Your task to perform on an android device: Set the phone to "Do not disturb". Image 0: 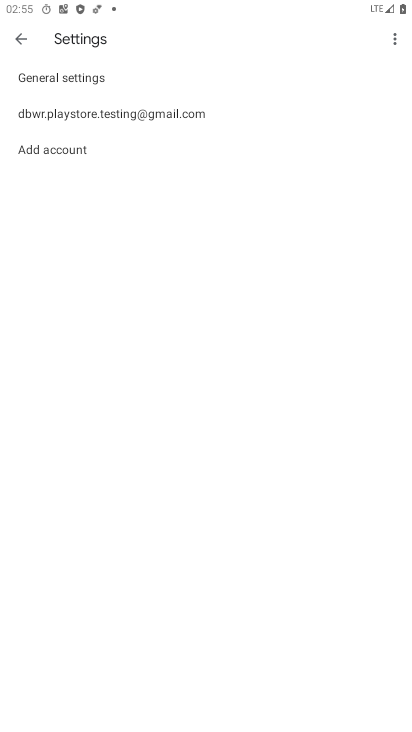
Step 0: press home button
Your task to perform on an android device: Set the phone to "Do not disturb". Image 1: 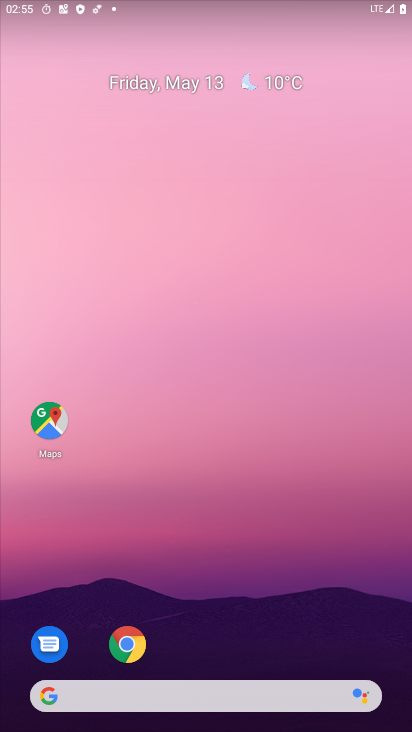
Step 1: drag from (197, 714) to (258, 8)
Your task to perform on an android device: Set the phone to "Do not disturb". Image 2: 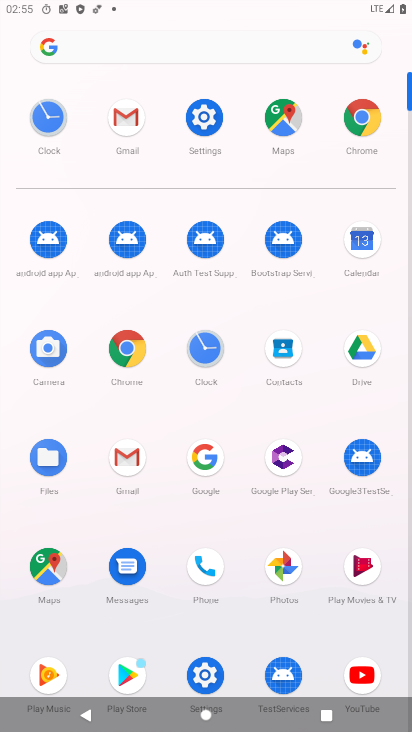
Step 2: click (204, 109)
Your task to perform on an android device: Set the phone to "Do not disturb". Image 3: 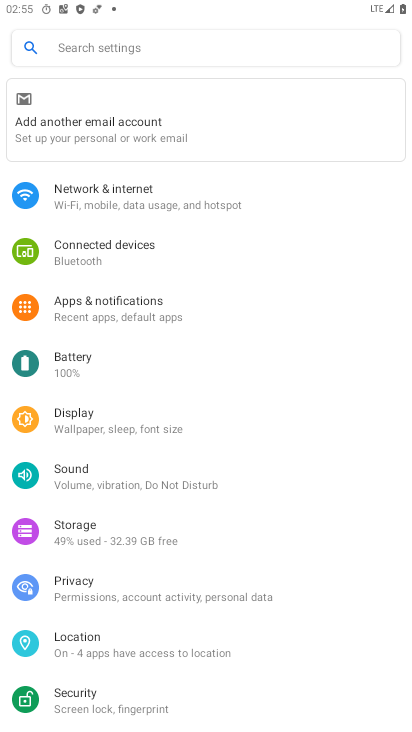
Step 3: drag from (147, 620) to (218, 121)
Your task to perform on an android device: Set the phone to "Do not disturb". Image 4: 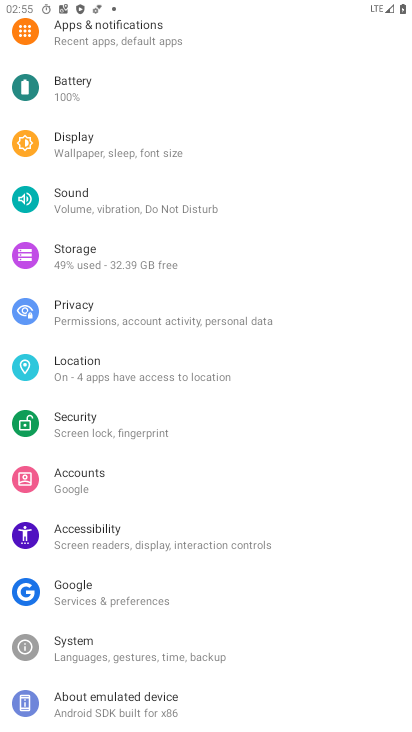
Step 4: click (85, 203)
Your task to perform on an android device: Set the phone to "Do not disturb". Image 5: 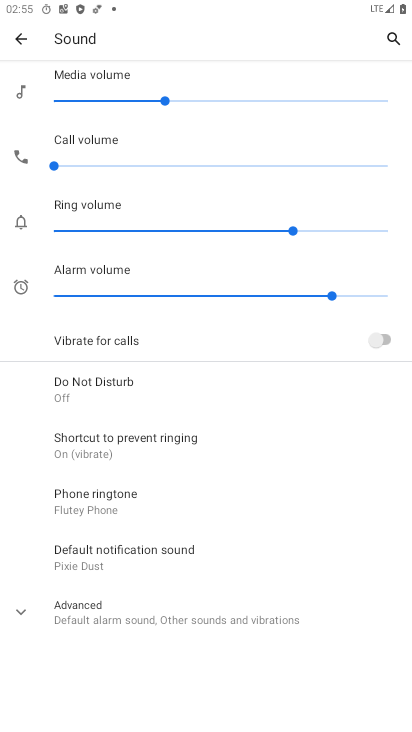
Step 5: click (104, 395)
Your task to perform on an android device: Set the phone to "Do not disturb". Image 6: 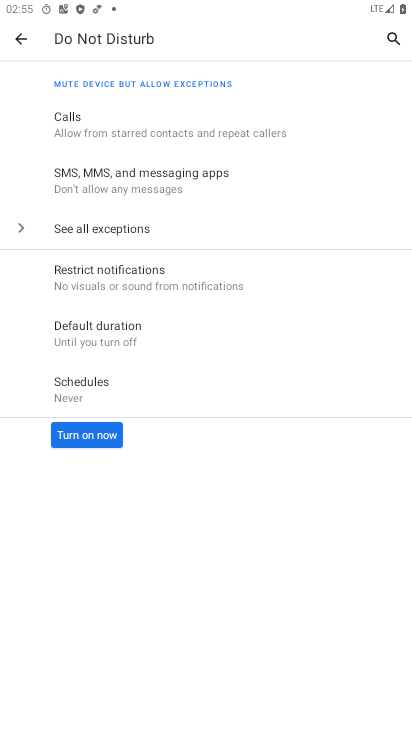
Step 6: click (82, 441)
Your task to perform on an android device: Set the phone to "Do not disturb". Image 7: 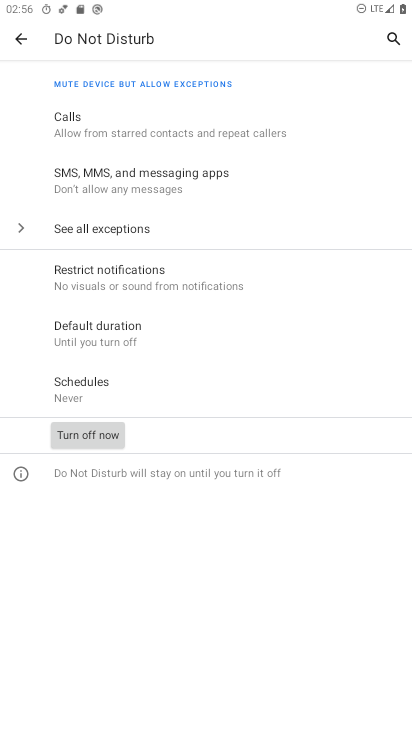
Step 7: task complete